Your task to perform on an android device: Show me the alarms in the clock app Image 0: 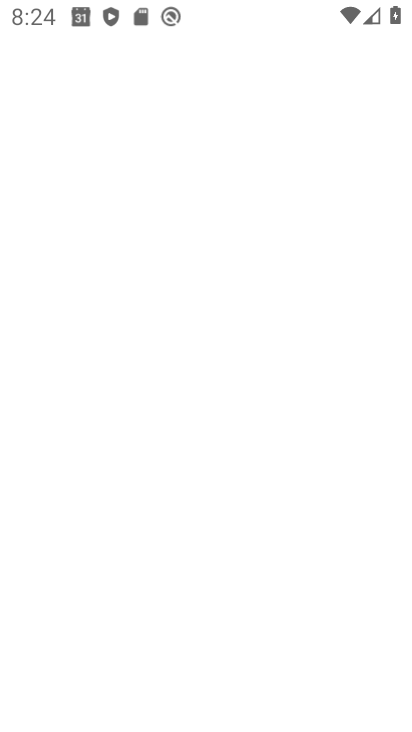
Step 0: press home button
Your task to perform on an android device: Show me the alarms in the clock app Image 1: 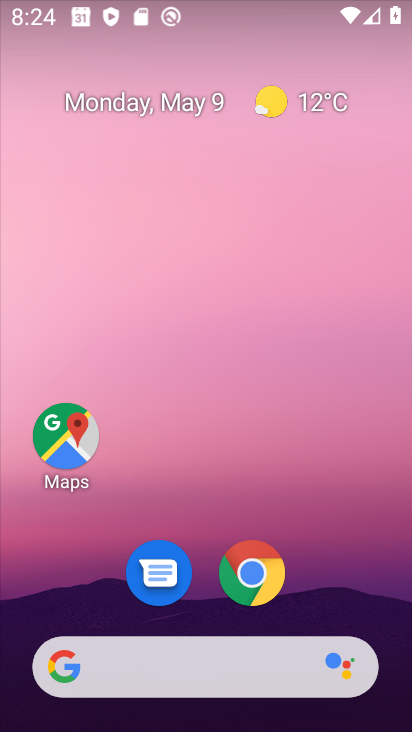
Step 1: drag from (248, 720) to (263, 192)
Your task to perform on an android device: Show me the alarms in the clock app Image 2: 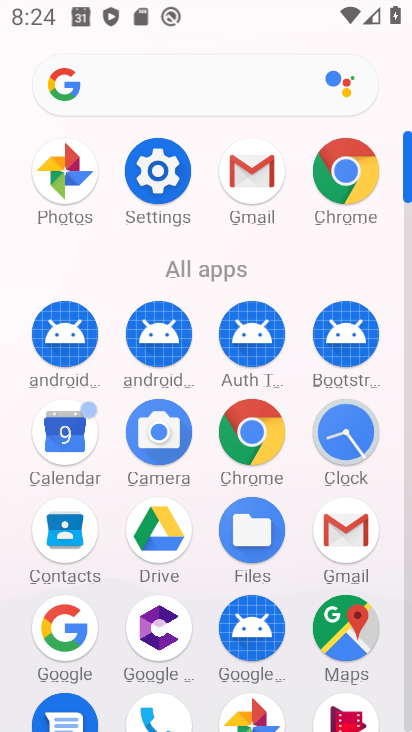
Step 2: click (355, 439)
Your task to perform on an android device: Show me the alarms in the clock app Image 3: 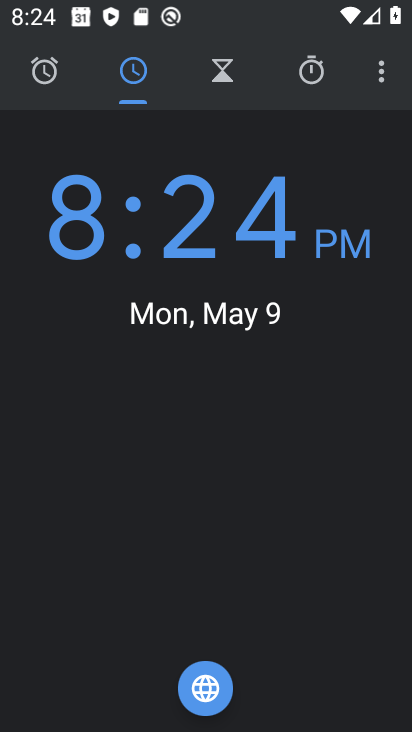
Step 3: click (46, 108)
Your task to perform on an android device: Show me the alarms in the clock app Image 4: 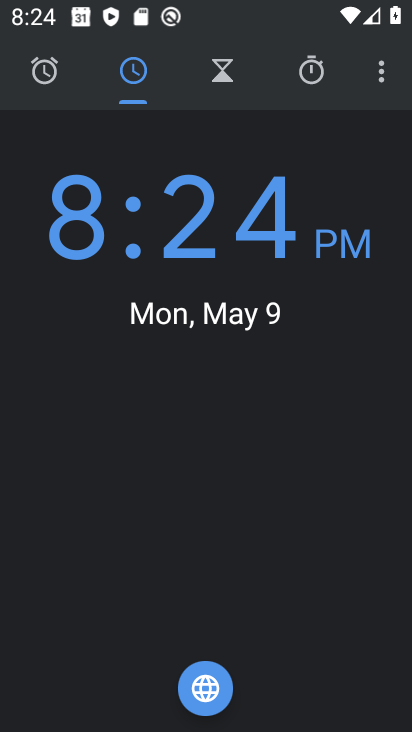
Step 4: click (59, 82)
Your task to perform on an android device: Show me the alarms in the clock app Image 5: 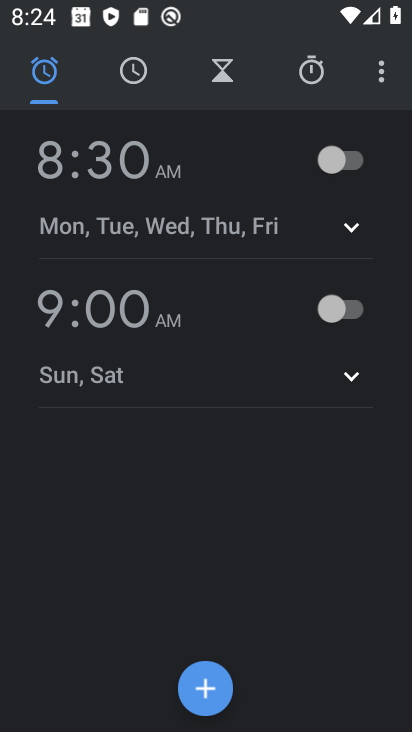
Step 5: task complete